Your task to perform on an android device: Go to calendar. Show me events next week Image 0: 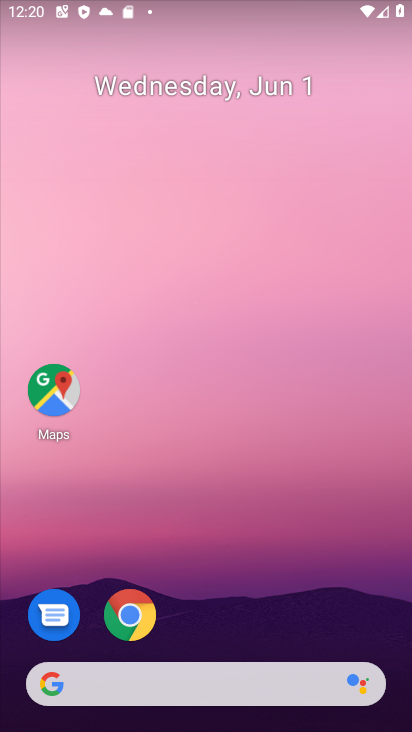
Step 0: task complete